Your task to perform on an android device: clear history in the chrome app Image 0: 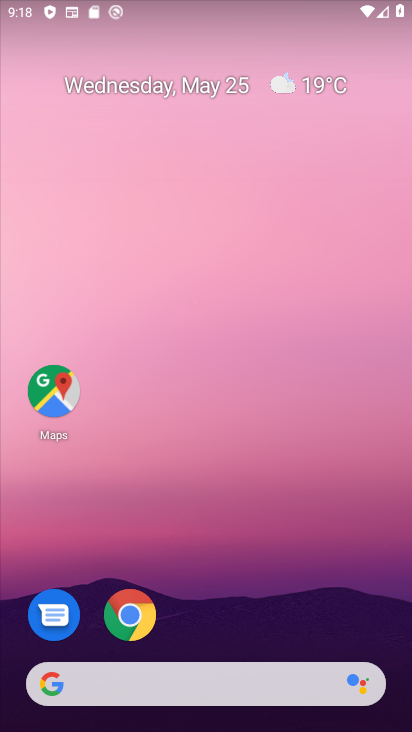
Step 0: drag from (251, 696) to (229, 62)
Your task to perform on an android device: clear history in the chrome app Image 1: 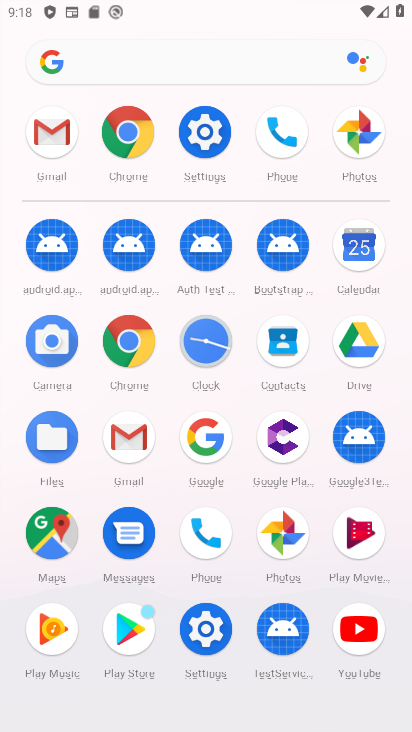
Step 1: click (119, 133)
Your task to perform on an android device: clear history in the chrome app Image 2: 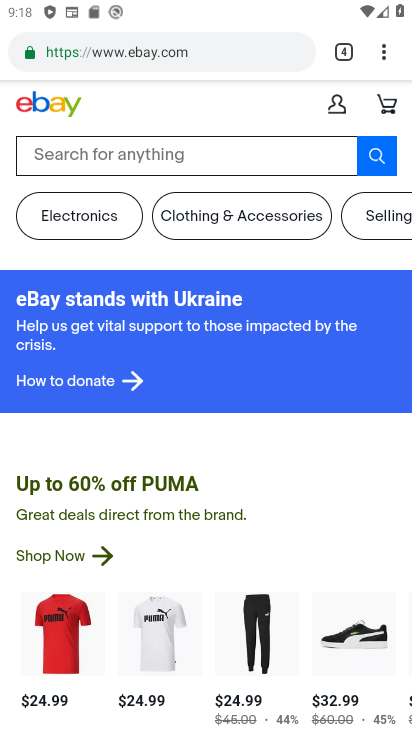
Step 2: click (377, 75)
Your task to perform on an android device: clear history in the chrome app Image 3: 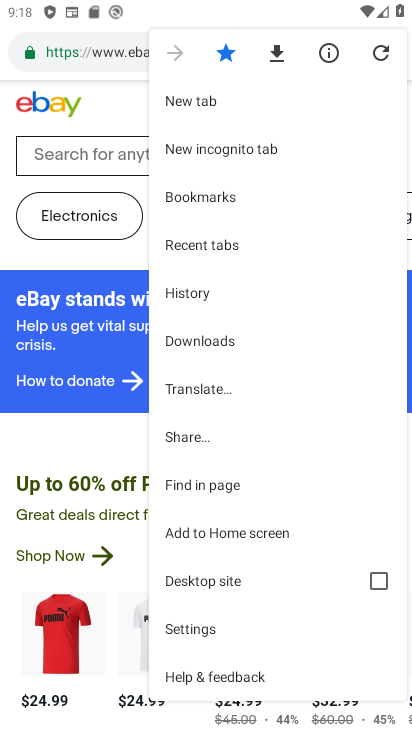
Step 3: click (192, 295)
Your task to perform on an android device: clear history in the chrome app Image 4: 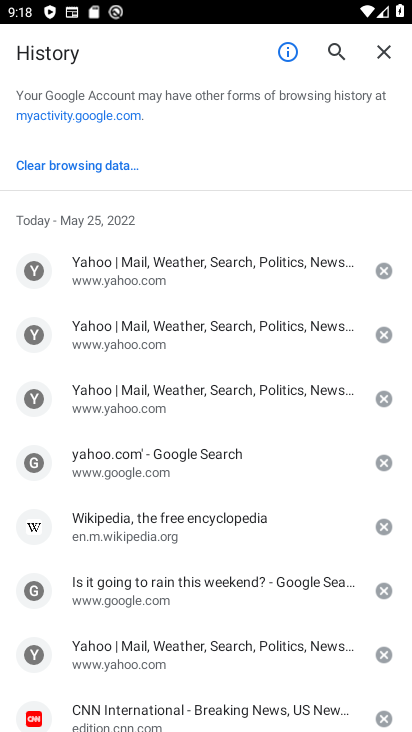
Step 4: click (62, 159)
Your task to perform on an android device: clear history in the chrome app Image 5: 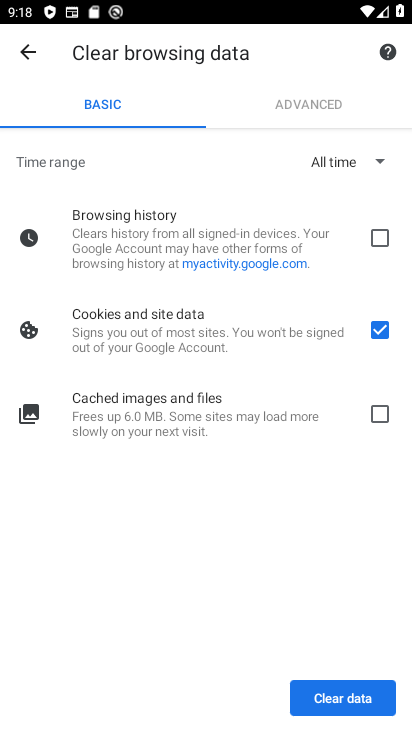
Step 5: click (338, 694)
Your task to perform on an android device: clear history in the chrome app Image 6: 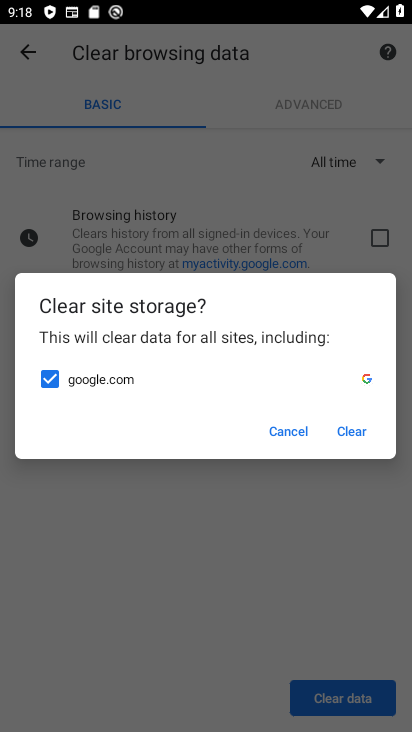
Step 6: task complete